Your task to perform on an android device: Open location settings Image 0: 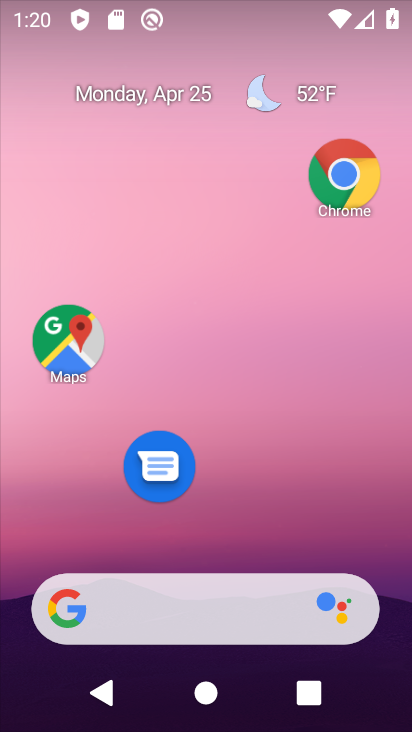
Step 0: drag from (266, 474) to (388, 73)
Your task to perform on an android device: Open location settings Image 1: 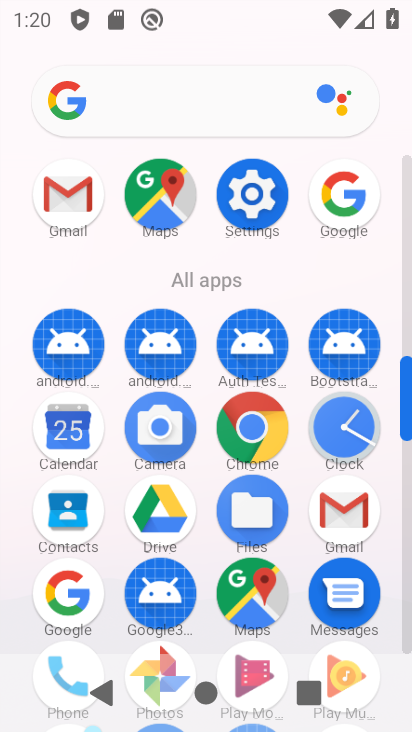
Step 1: click (244, 206)
Your task to perform on an android device: Open location settings Image 2: 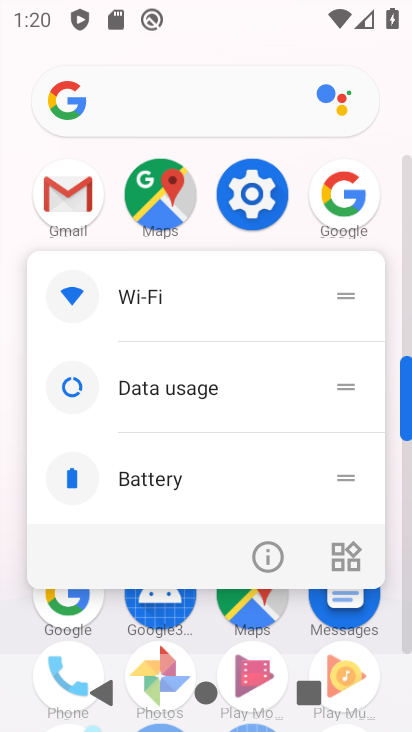
Step 2: click (244, 206)
Your task to perform on an android device: Open location settings Image 3: 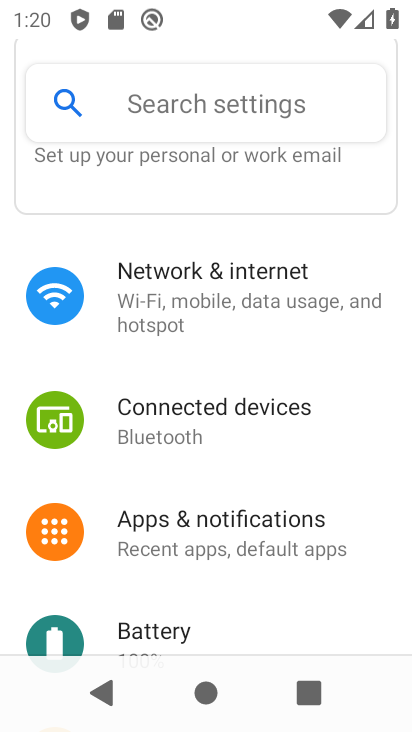
Step 3: drag from (233, 496) to (233, 247)
Your task to perform on an android device: Open location settings Image 4: 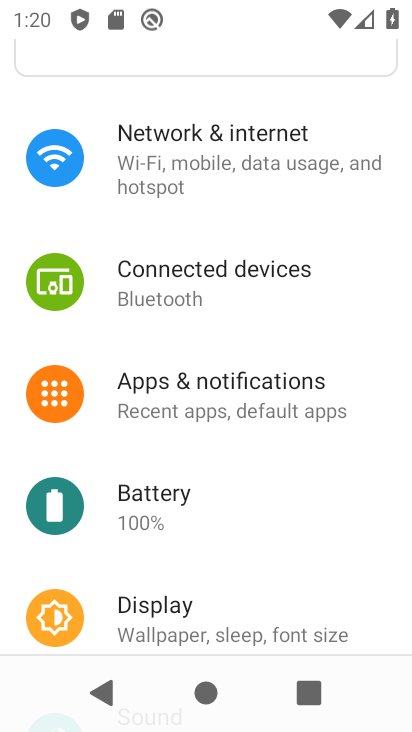
Step 4: drag from (250, 518) to (276, 299)
Your task to perform on an android device: Open location settings Image 5: 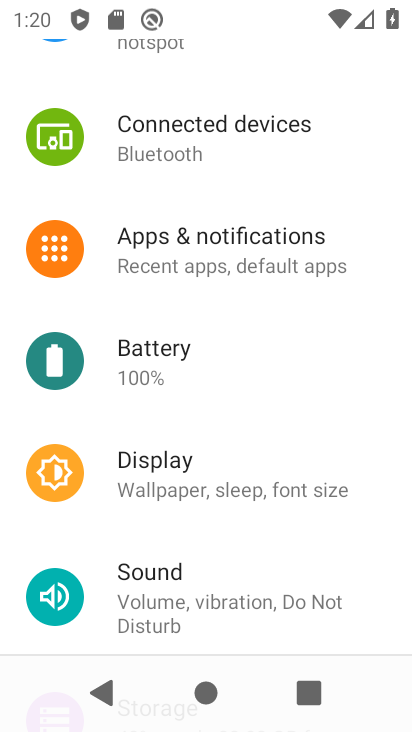
Step 5: drag from (322, 578) to (333, 314)
Your task to perform on an android device: Open location settings Image 6: 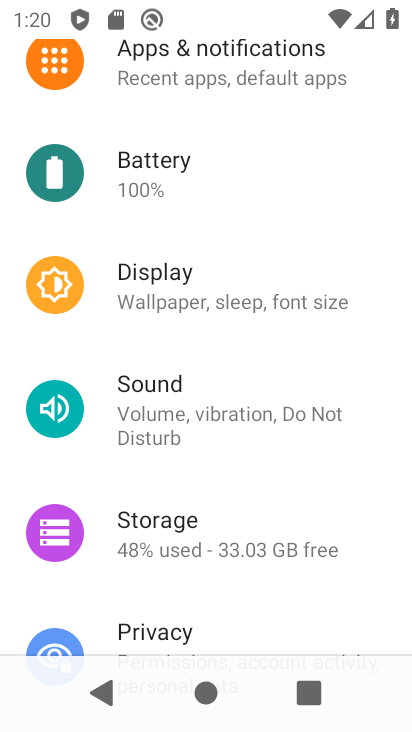
Step 6: drag from (255, 507) to (281, 336)
Your task to perform on an android device: Open location settings Image 7: 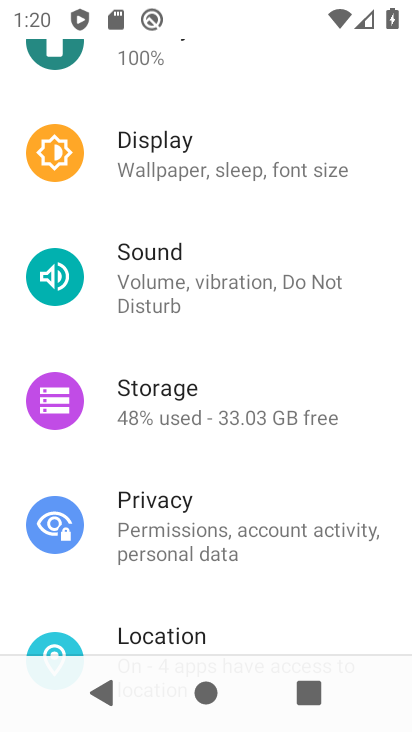
Step 7: drag from (200, 566) to (241, 350)
Your task to perform on an android device: Open location settings Image 8: 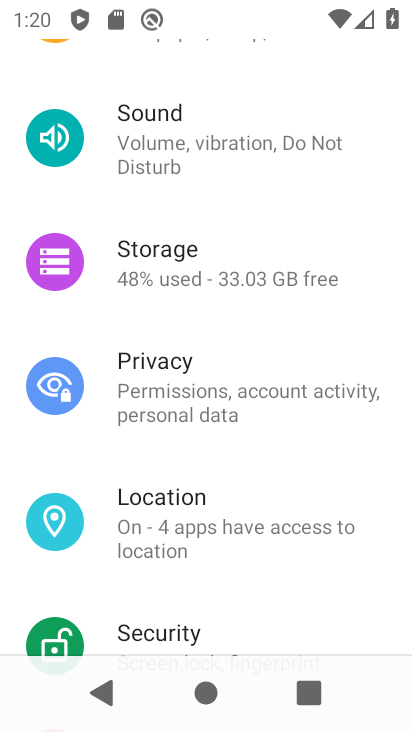
Step 8: click (184, 495)
Your task to perform on an android device: Open location settings Image 9: 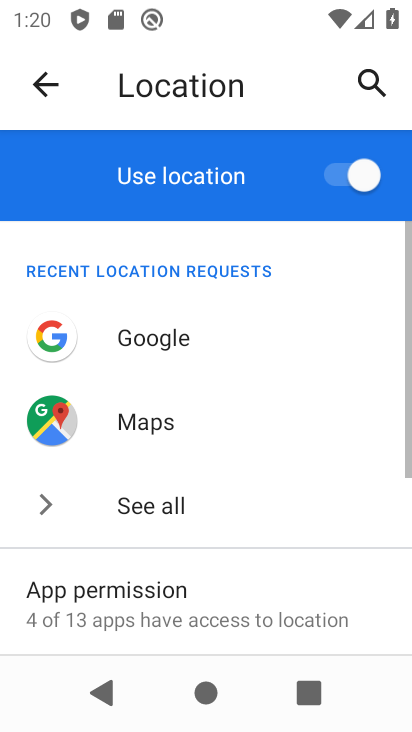
Step 9: task complete